Your task to perform on an android device: Go to battery settings Image 0: 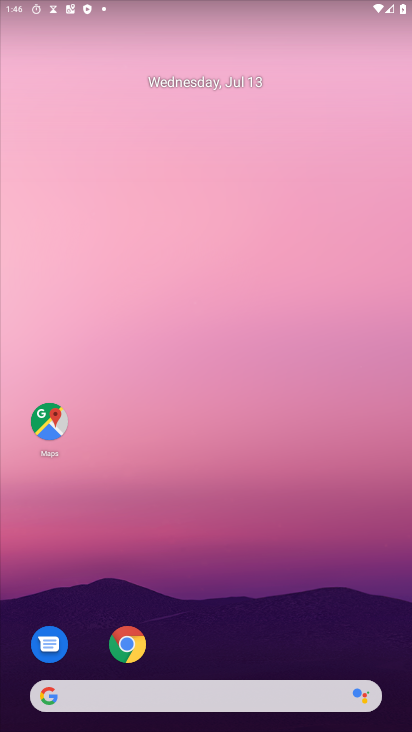
Step 0: press home button
Your task to perform on an android device: Go to battery settings Image 1: 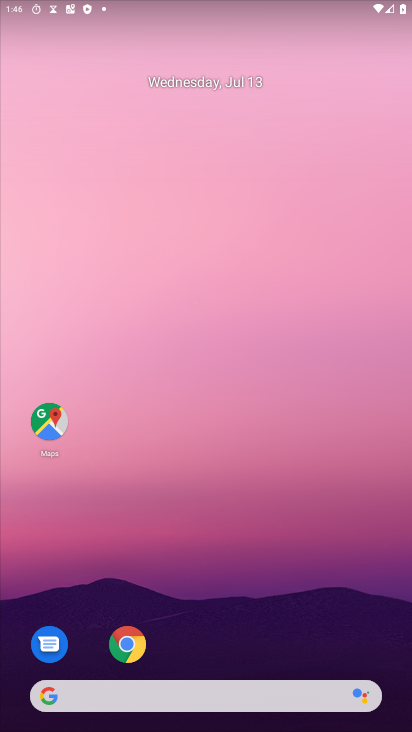
Step 1: drag from (288, 620) to (228, 98)
Your task to perform on an android device: Go to battery settings Image 2: 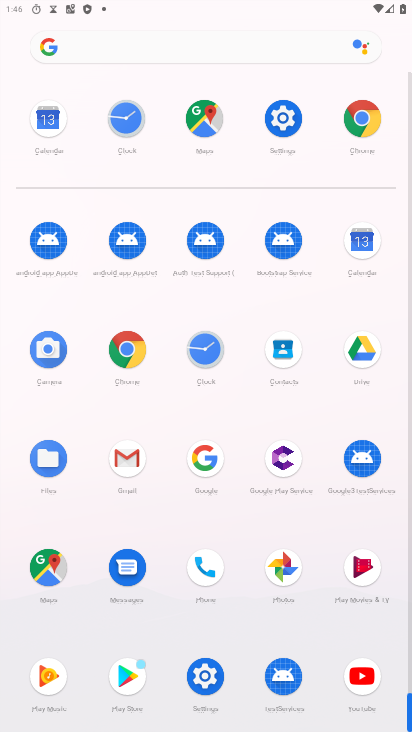
Step 2: click (280, 119)
Your task to perform on an android device: Go to battery settings Image 3: 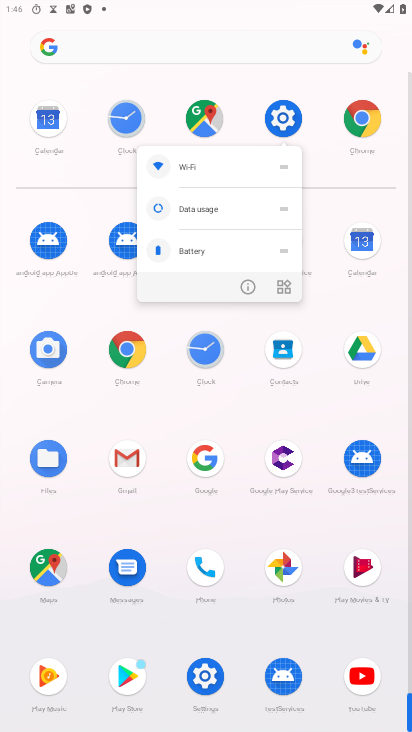
Step 3: click (273, 119)
Your task to perform on an android device: Go to battery settings Image 4: 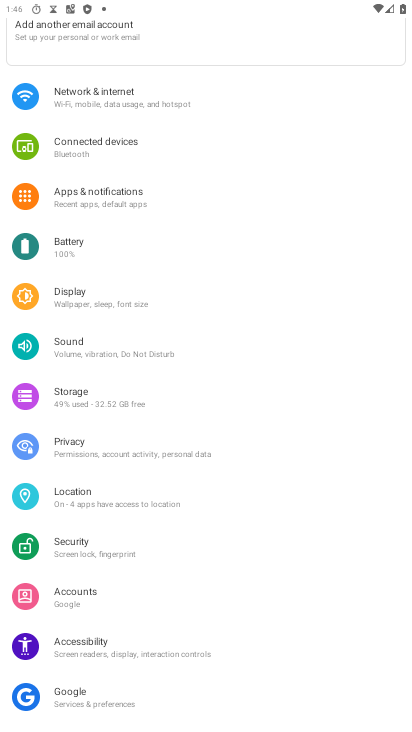
Step 4: click (64, 250)
Your task to perform on an android device: Go to battery settings Image 5: 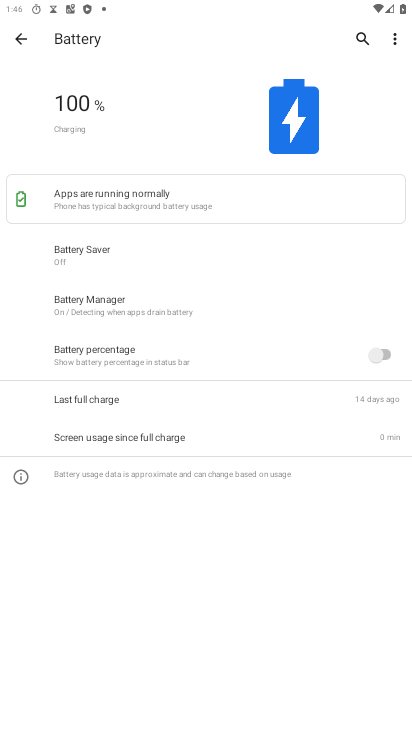
Step 5: task complete